Your task to perform on an android device: manage bookmarks in the chrome app Image 0: 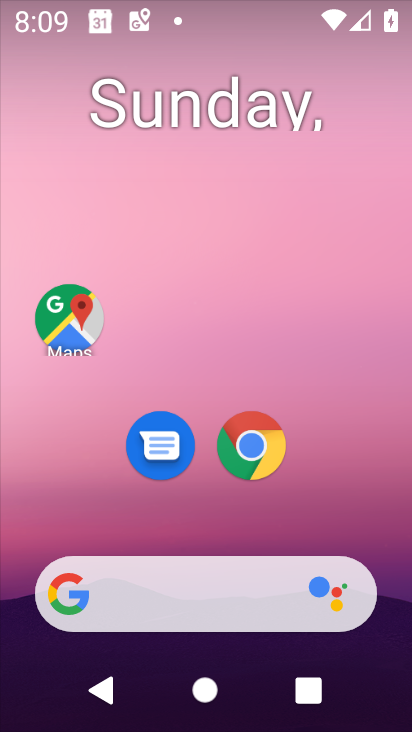
Step 0: press home button
Your task to perform on an android device: manage bookmarks in the chrome app Image 1: 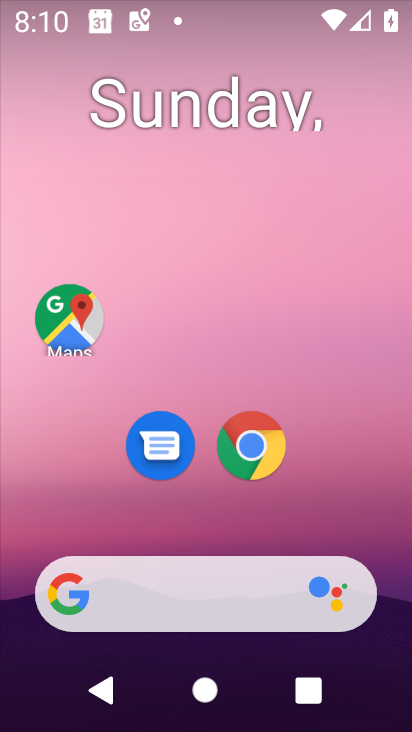
Step 1: click (250, 448)
Your task to perform on an android device: manage bookmarks in the chrome app Image 2: 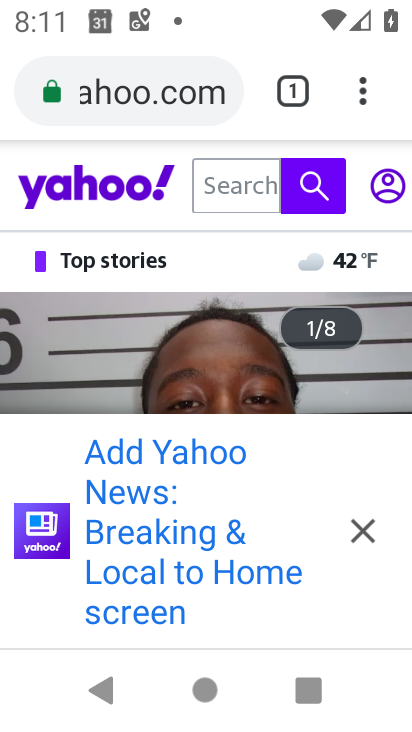
Step 2: click (360, 82)
Your task to perform on an android device: manage bookmarks in the chrome app Image 3: 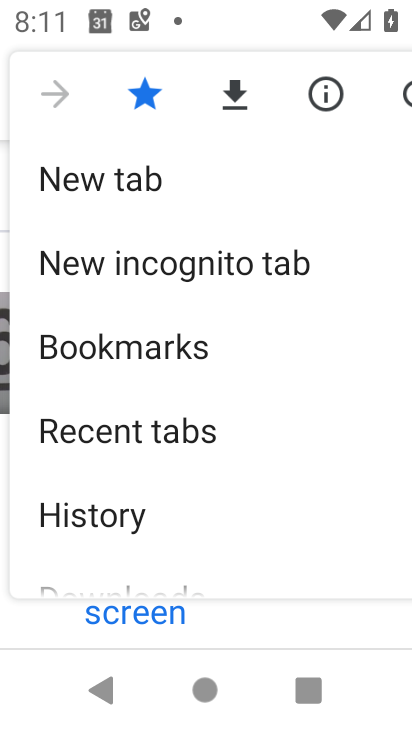
Step 3: click (141, 361)
Your task to perform on an android device: manage bookmarks in the chrome app Image 4: 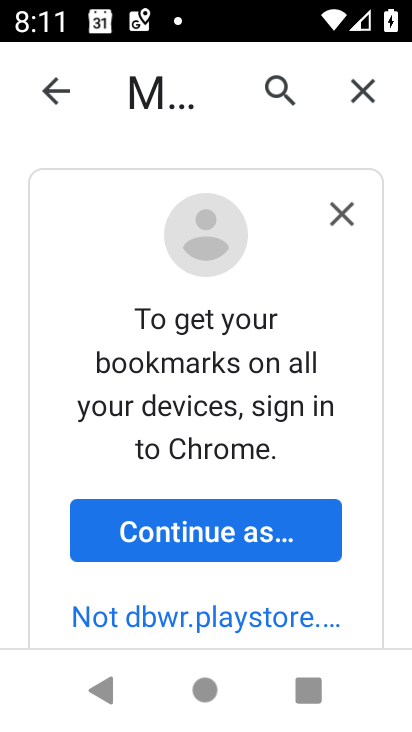
Step 4: click (349, 207)
Your task to perform on an android device: manage bookmarks in the chrome app Image 5: 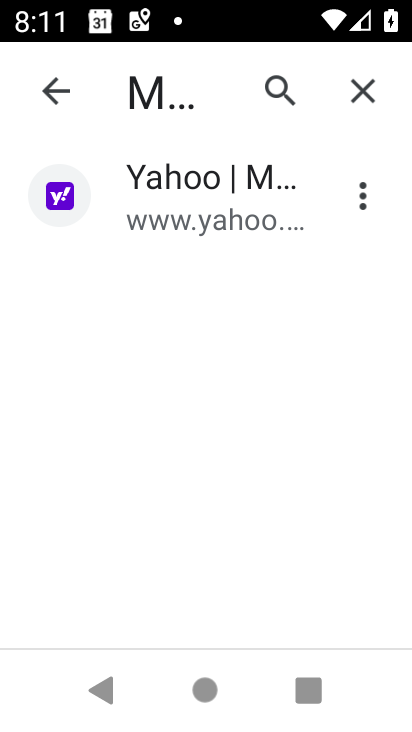
Step 5: task complete